Your task to perform on an android device: allow notifications from all sites in the chrome app Image 0: 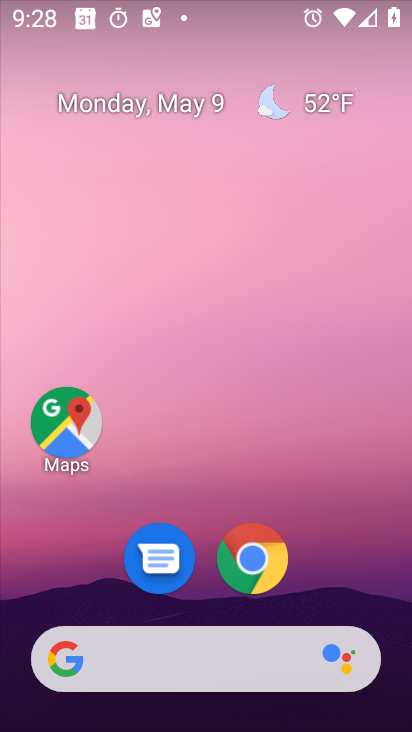
Step 0: click (215, 556)
Your task to perform on an android device: allow notifications from all sites in the chrome app Image 1: 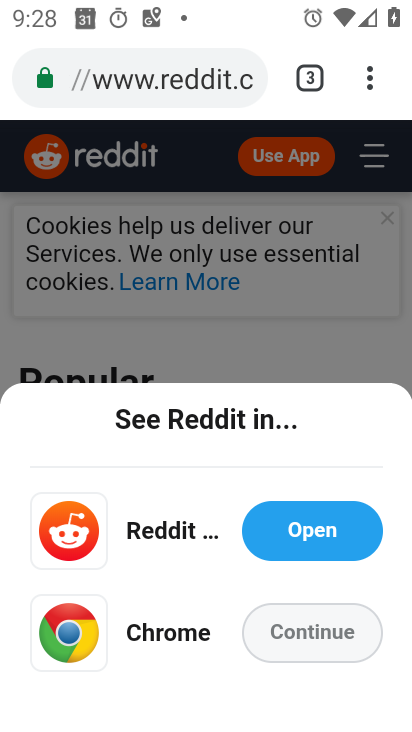
Step 1: press back button
Your task to perform on an android device: allow notifications from all sites in the chrome app Image 2: 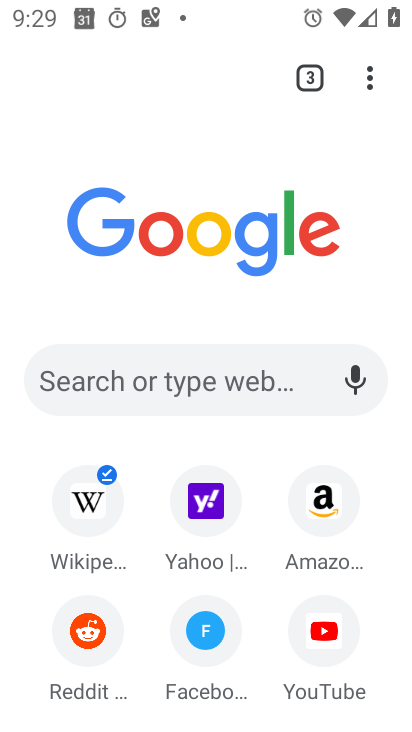
Step 2: click (372, 67)
Your task to perform on an android device: allow notifications from all sites in the chrome app Image 3: 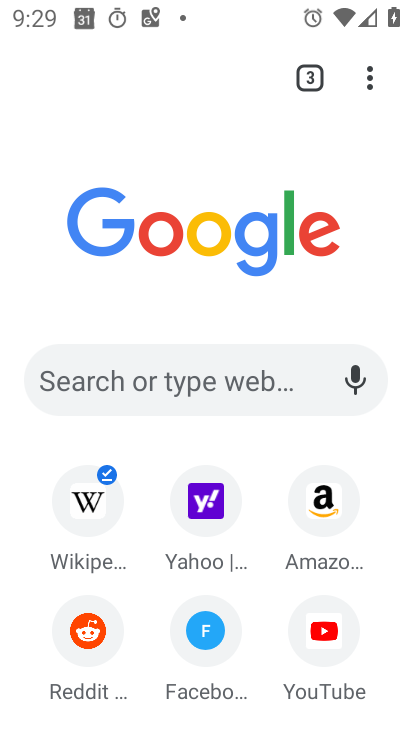
Step 3: drag from (375, 65) to (134, 615)
Your task to perform on an android device: allow notifications from all sites in the chrome app Image 4: 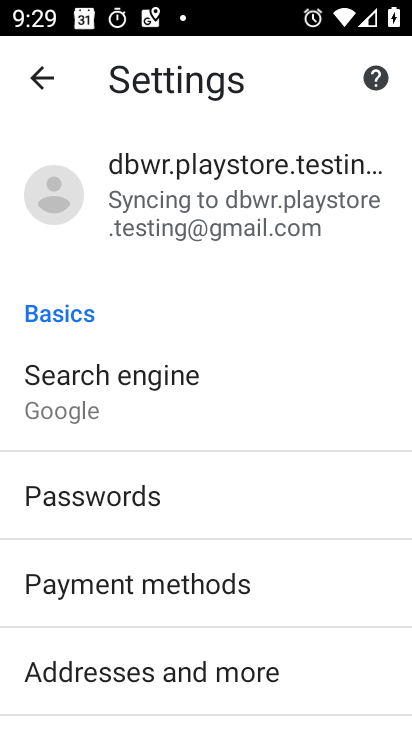
Step 4: drag from (182, 645) to (251, 155)
Your task to perform on an android device: allow notifications from all sites in the chrome app Image 5: 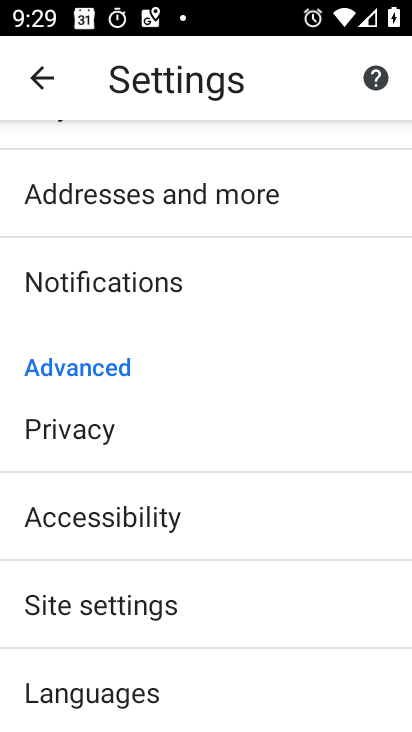
Step 5: drag from (174, 658) to (206, 591)
Your task to perform on an android device: allow notifications from all sites in the chrome app Image 6: 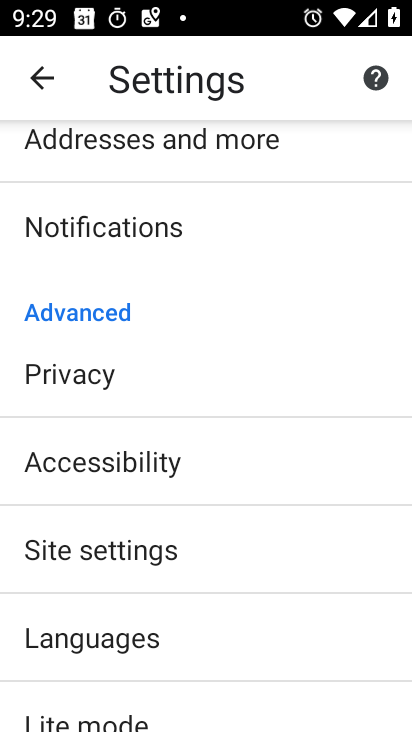
Step 6: click (109, 239)
Your task to perform on an android device: allow notifications from all sites in the chrome app Image 7: 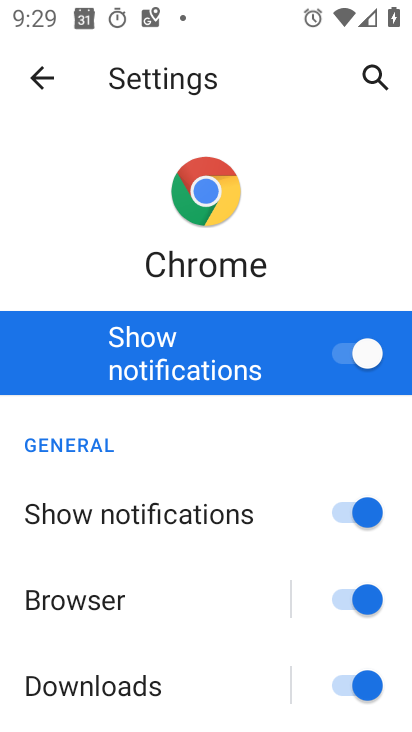
Step 7: task complete